Your task to perform on an android device: open the mobile data screen to see how much data has been used Image 0: 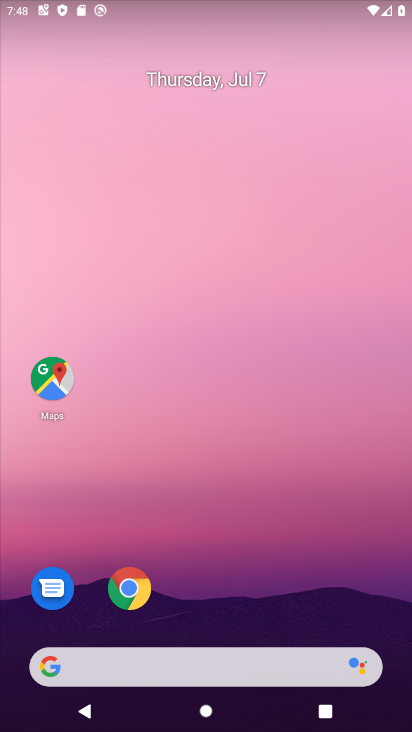
Step 0: drag from (217, 581) to (258, 90)
Your task to perform on an android device: open the mobile data screen to see how much data has been used Image 1: 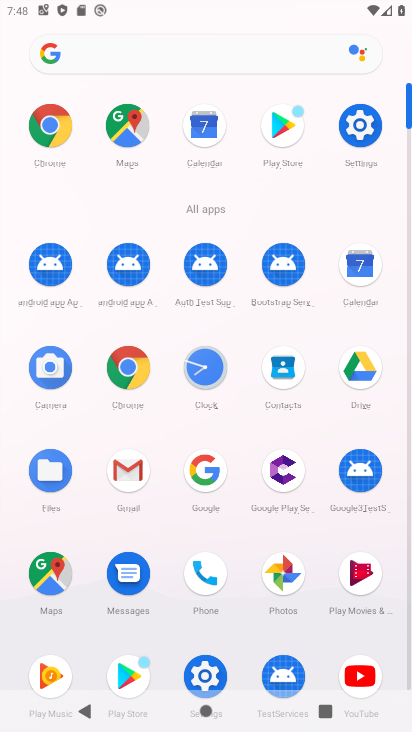
Step 1: click (344, 136)
Your task to perform on an android device: open the mobile data screen to see how much data has been used Image 2: 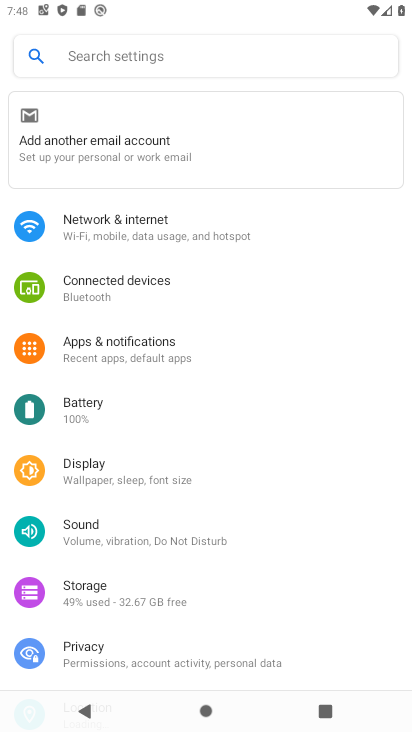
Step 2: drag from (129, 526) to (196, 246)
Your task to perform on an android device: open the mobile data screen to see how much data has been used Image 3: 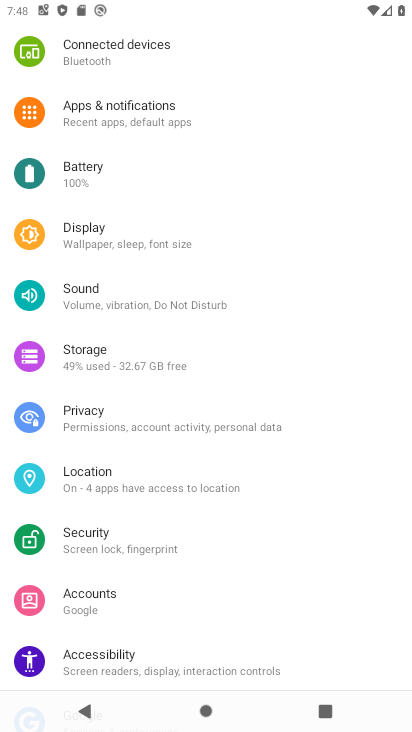
Step 3: drag from (167, 182) to (128, 480)
Your task to perform on an android device: open the mobile data screen to see how much data has been used Image 4: 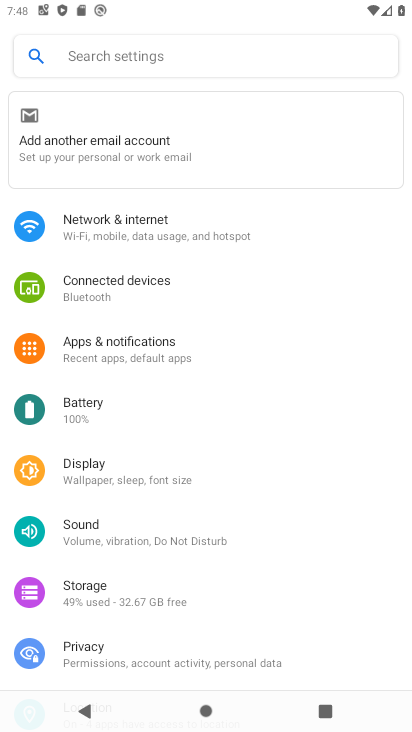
Step 4: click (152, 221)
Your task to perform on an android device: open the mobile data screen to see how much data has been used Image 5: 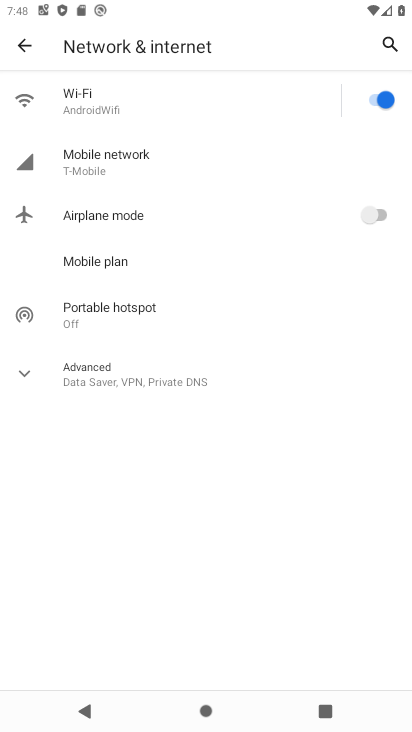
Step 5: drag from (169, 510) to (186, 319)
Your task to perform on an android device: open the mobile data screen to see how much data has been used Image 6: 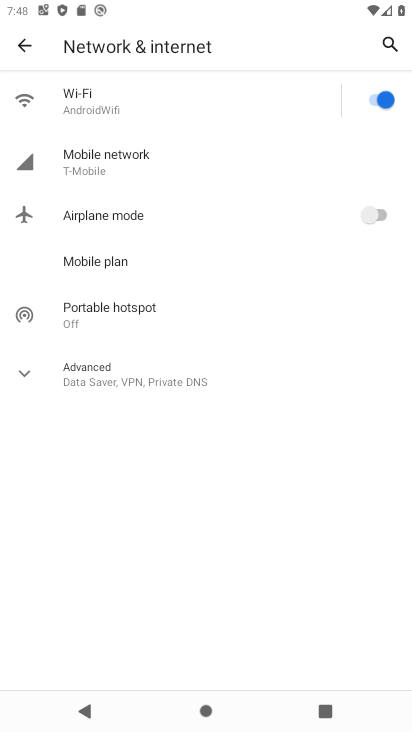
Step 6: click (140, 373)
Your task to perform on an android device: open the mobile data screen to see how much data has been used Image 7: 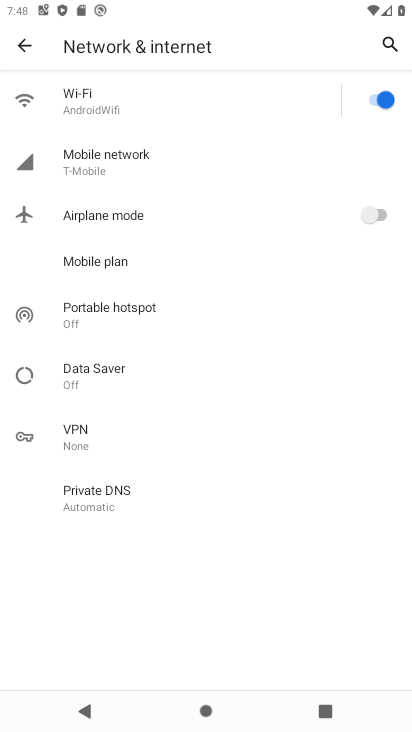
Step 7: click (212, 166)
Your task to perform on an android device: open the mobile data screen to see how much data has been used Image 8: 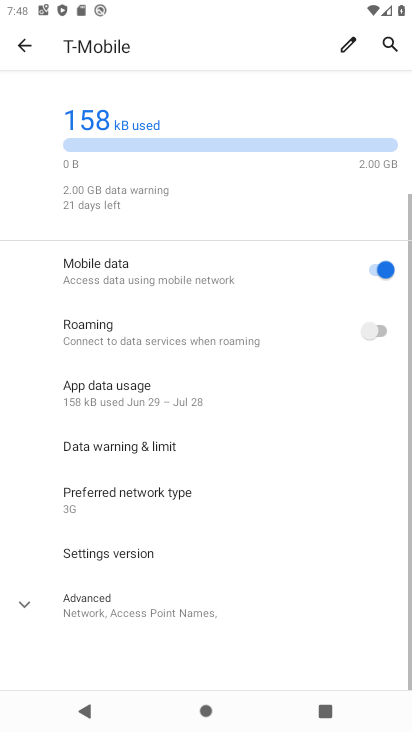
Step 8: drag from (159, 553) to (187, 269)
Your task to perform on an android device: open the mobile data screen to see how much data has been used Image 9: 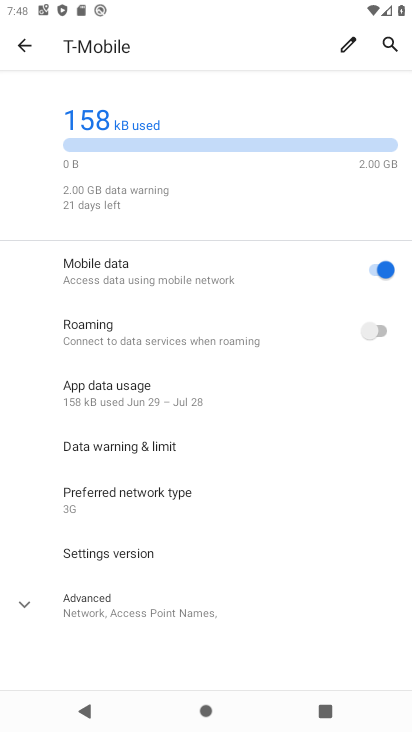
Step 9: drag from (217, 192) to (219, 730)
Your task to perform on an android device: open the mobile data screen to see how much data has been used Image 10: 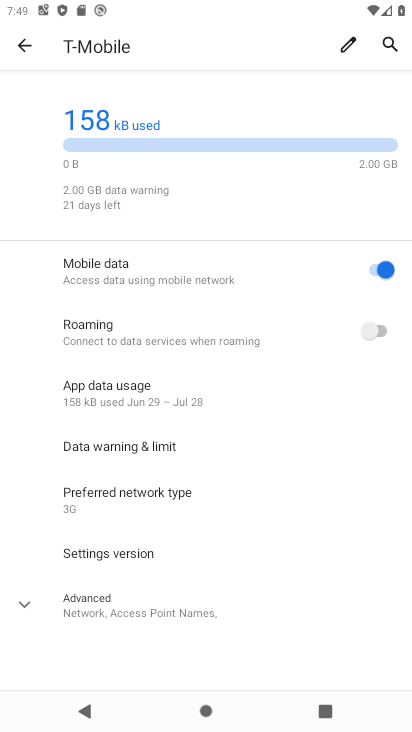
Step 10: drag from (183, 210) to (214, 618)
Your task to perform on an android device: open the mobile data screen to see how much data has been used Image 11: 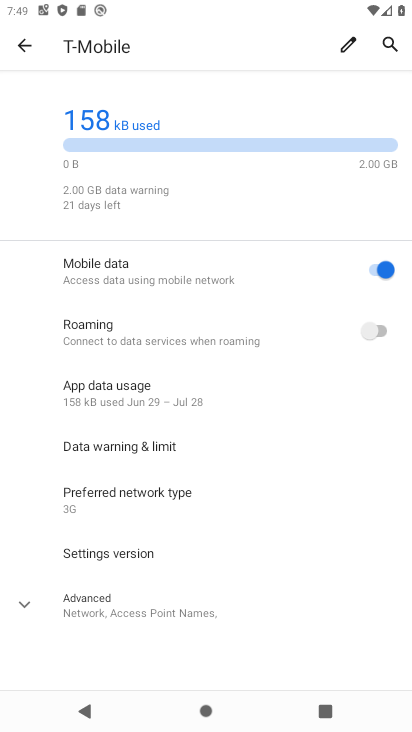
Step 11: click (168, 400)
Your task to perform on an android device: open the mobile data screen to see how much data has been used Image 12: 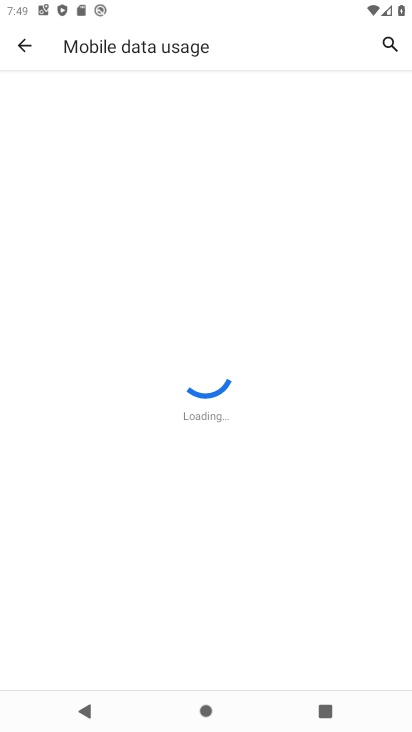
Step 12: task complete